Your task to perform on an android device: Show the shopping cart on bestbuy. Add razer huntsman to the cart on bestbuy Image 0: 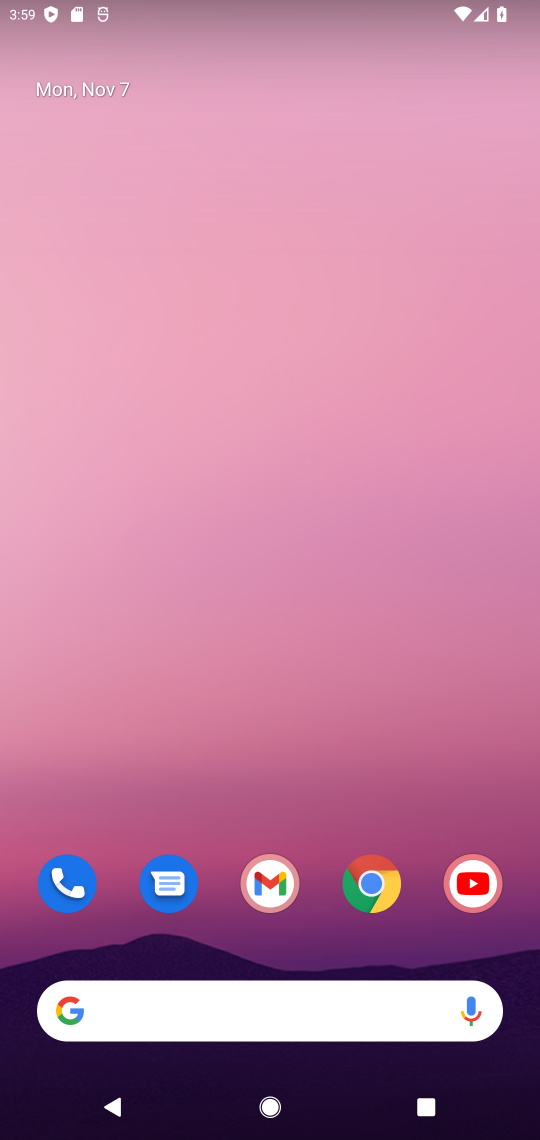
Step 0: click (371, 878)
Your task to perform on an android device: Show the shopping cart on bestbuy. Add razer huntsman to the cart on bestbuy Image 1: 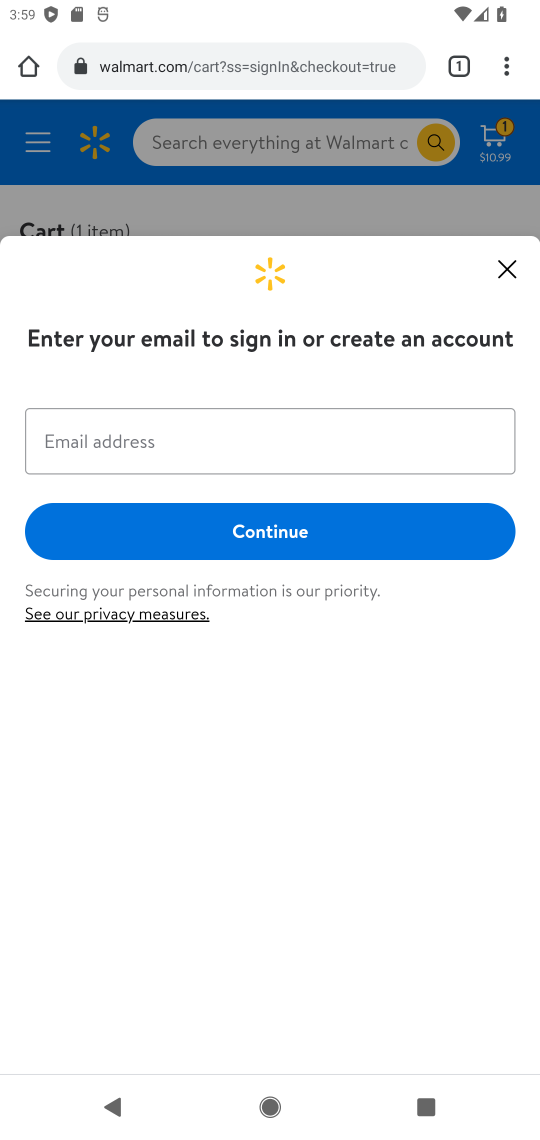
Step 1: click (311, 53)
Your task to perform on an android device: Show the shopping cart on bestbuy. Add razer huntsman to the cart on bestbuy Image 2: 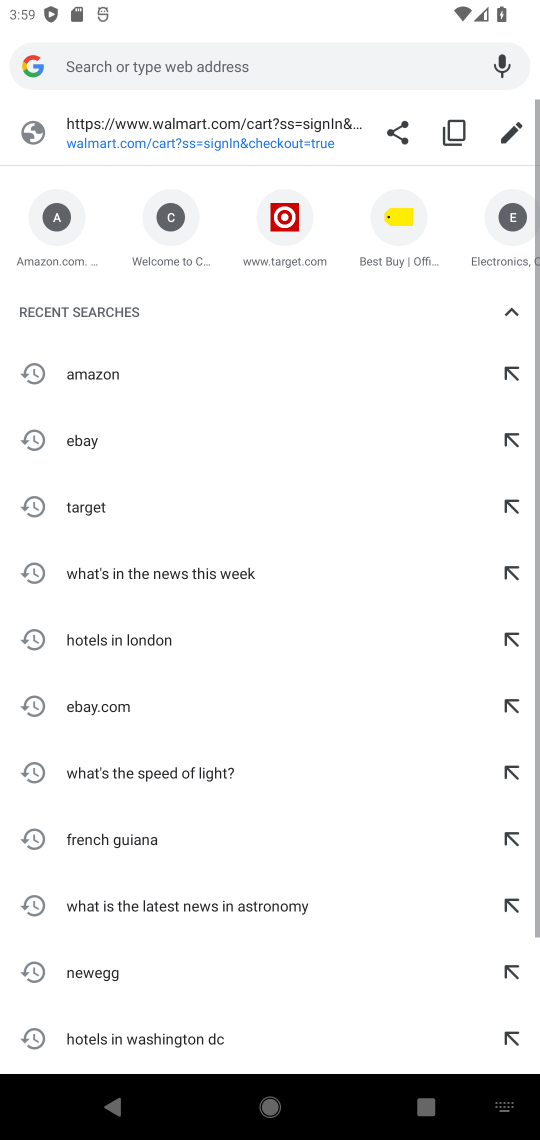
Step 2: click (301, 57)
Your task to perform on an android device: Show the shopping cart on bestbuy. Add razer huntsman to the cart on bestbuy Image 3: 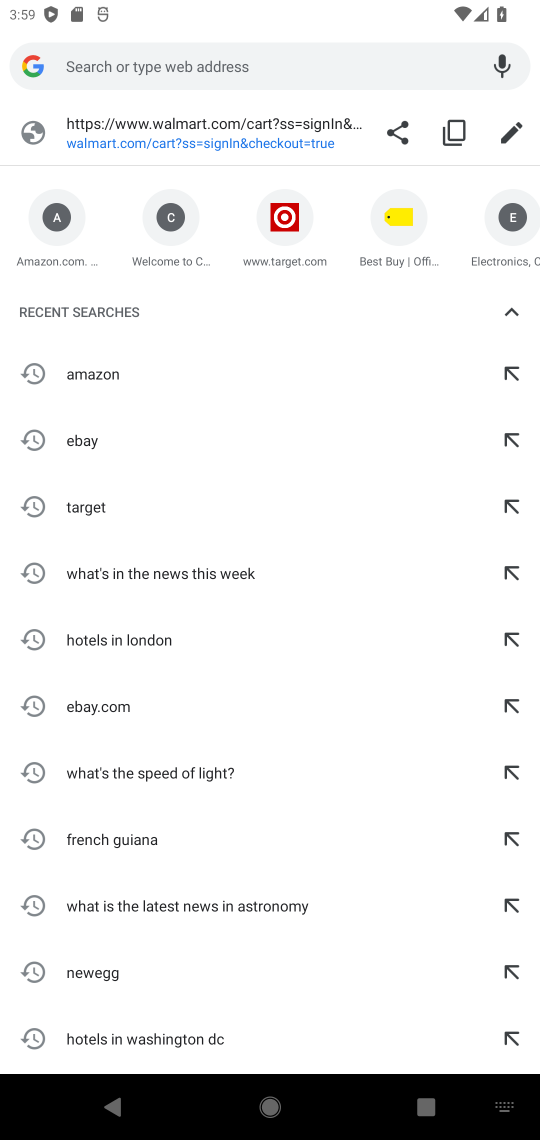
Step 3: click (391, 264)
Your task to perform on an android device: Show the shopping cart on bestbuy. Add razer huntsman to the cart on bestbuy Image 4: 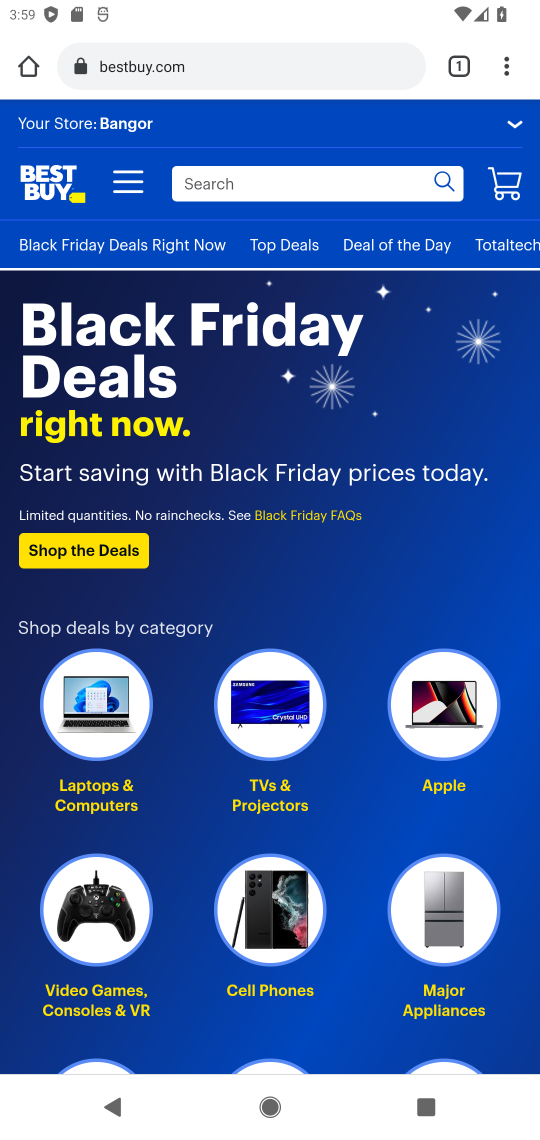
Step 4: click (325, 178)
Your task to perform on an android device: Show the shopping cart on bestbuy. Add razer huntsman to the cart on bestbuy Image 5: 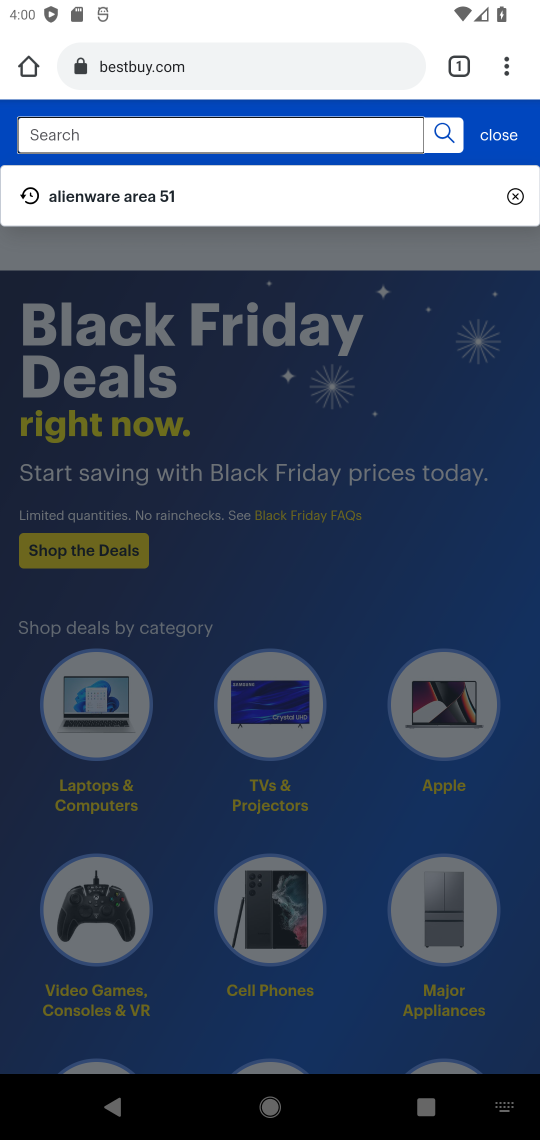
Step 5: type " razer huntsman"
Your task to perform on an android device: Show the shopping cart on bestbuy. Add razer huntsman to the cart on bestbuy Image 6: 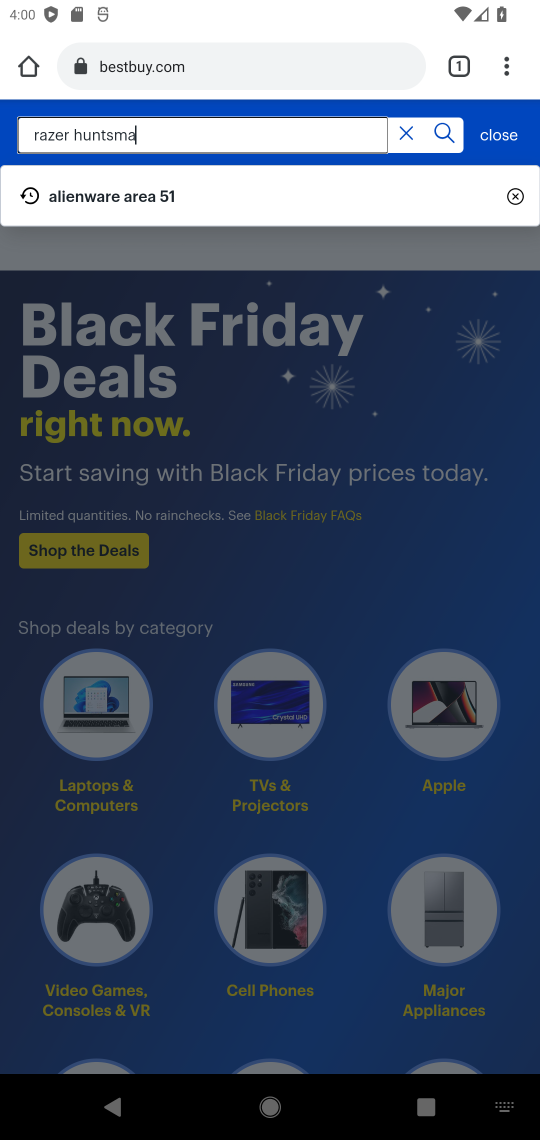
Step 6: press enter
Your task to perform on an android device: Show the shopping cart on bestbuy. Add razer huntsman to the cart on bestbuy Image 7: 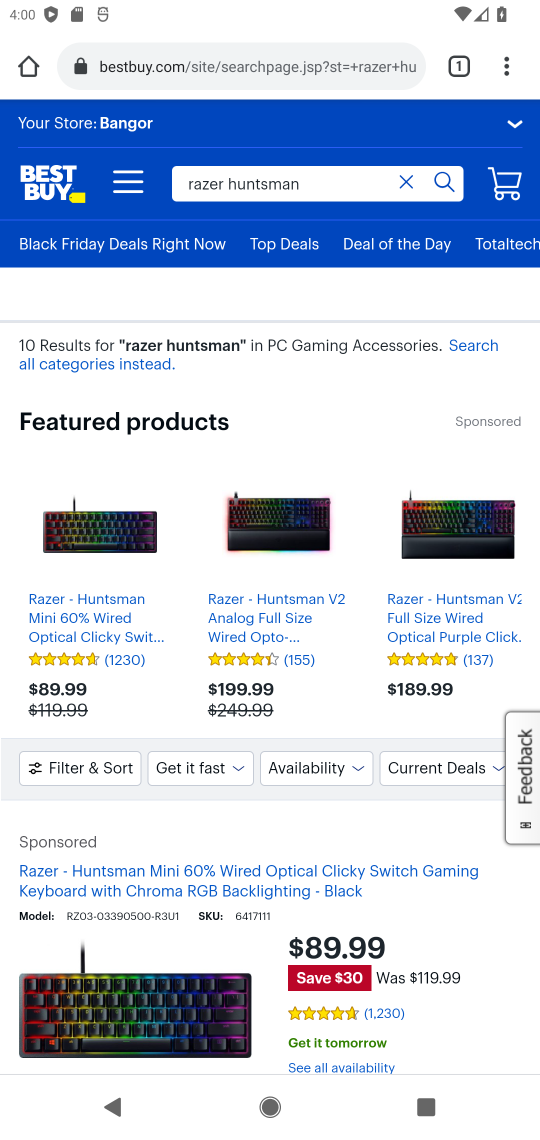
Step 7: drag from (254, 947) to (333, 753)
Your task to perform on an android device: Show the shopping cart on bestbuy. Add razer huntsman to the cart on bestbuy Image 8: 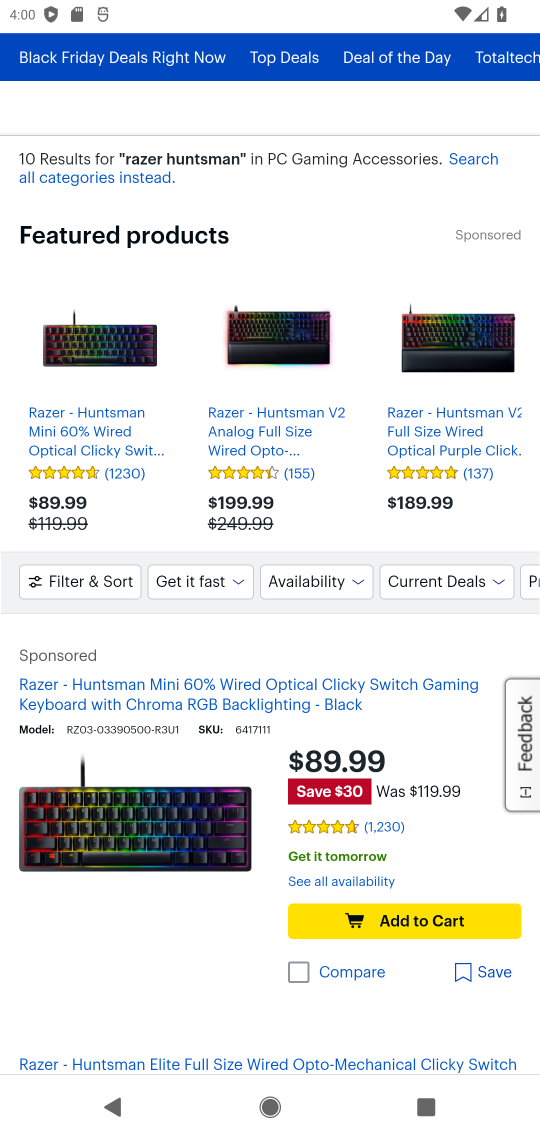
Step 8: click (430, 923)
Your task to perform on an android device: Show the shopping cart on bestbuy. Add razer huntsman to the cart on bestbuy Image 9: 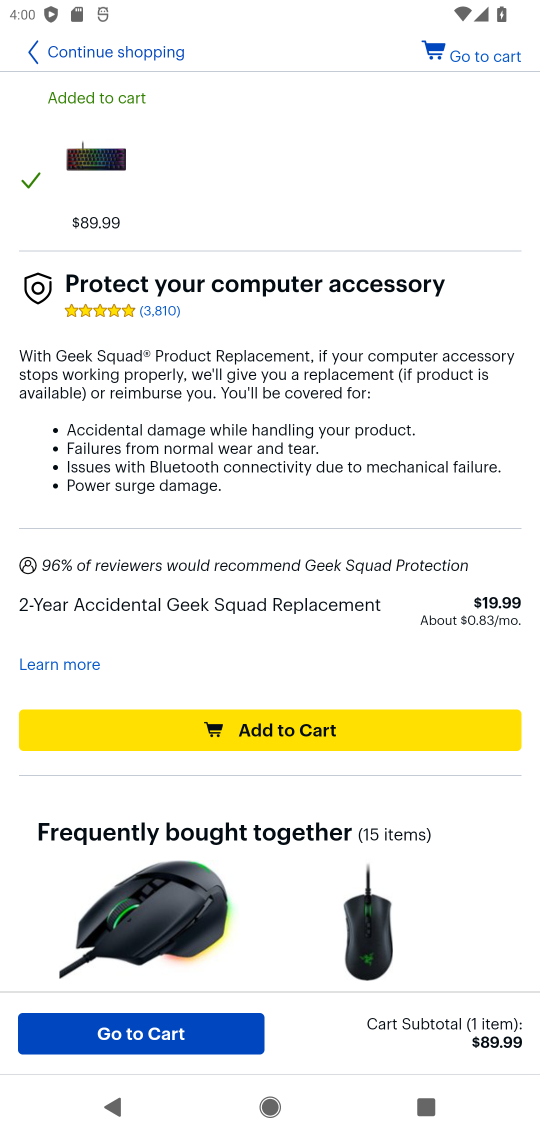
Step 9: click (437, 44)
Your task to perform on an android device: Show the shopping cart on bestbuy. Add razer huntsman to the cart on bestbuy Image 10: 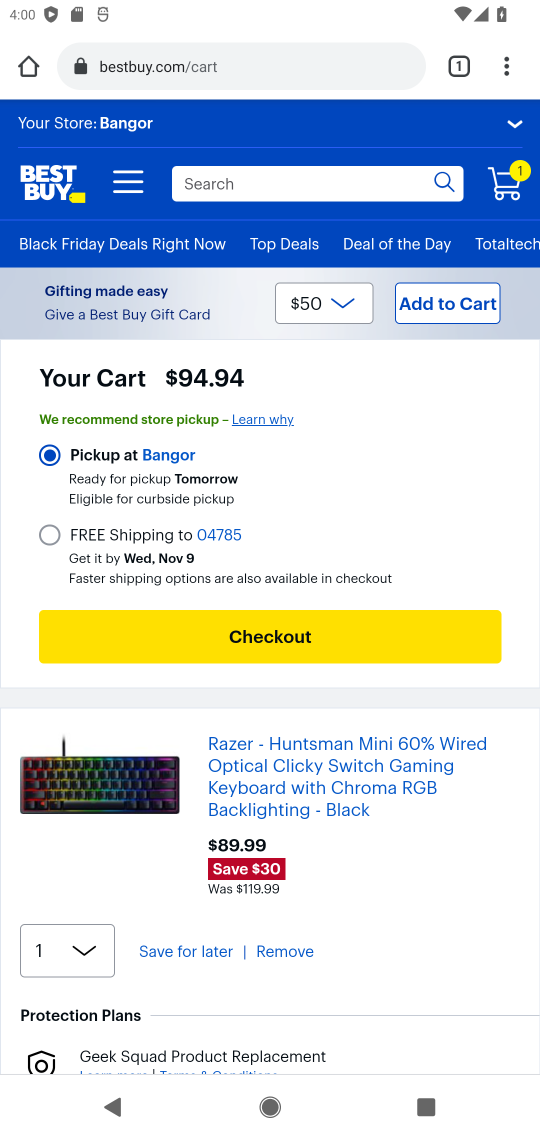
Step 10: task complete